Your task to perform on an android device: turn off notifications settings in the gmail app Image 0: 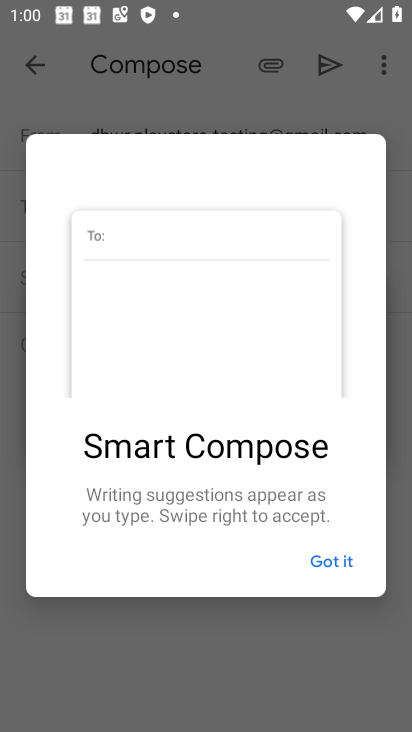
Step 0: click (330, 573)
Your task to perform on an android device: turn off notifications settings in the gmail app Image 1: 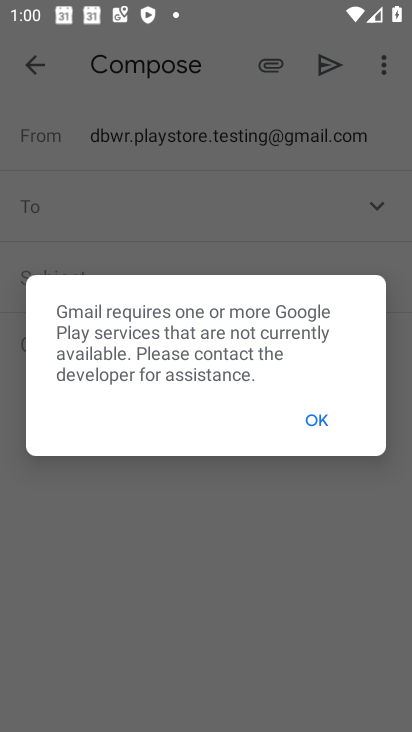
Step 1: click (322, 421)
Your task to perform on an android device: turn off notifications settings in the gmail app Image 2: 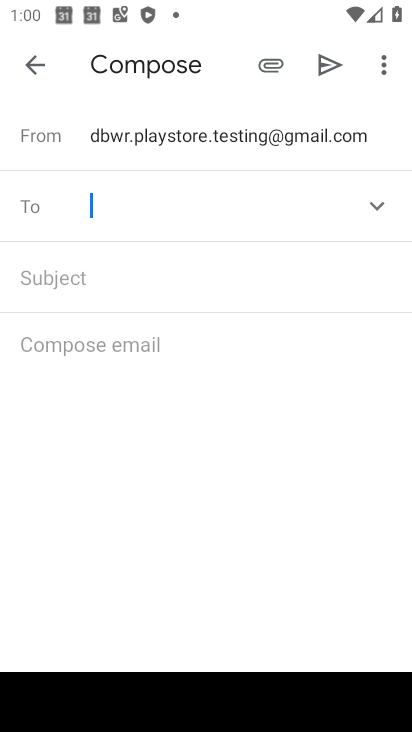
Step 2: click (32, 61)
Your task to perform on an android device: turn off notifications settings in the gmail app Image 3: 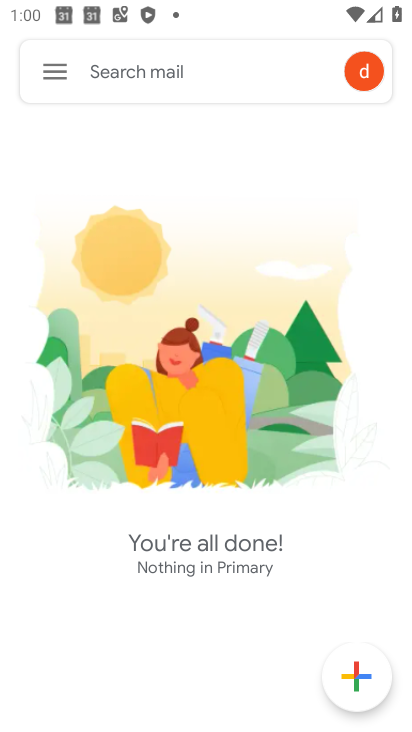
Step 3: click (68, 81)
Your task to perform on an android device: turn off notifications settings in the gmail app Image 4: 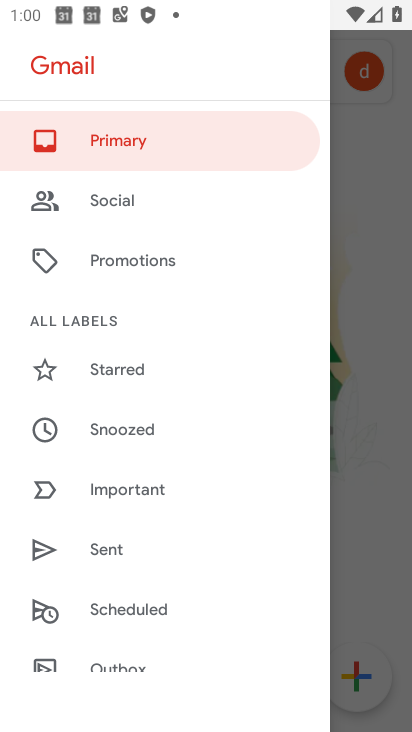
Step 4: drag from (113, 611) to (164, 199)
Your task to perform on an android device: turn off notifications settings in the gmail app Image 5: 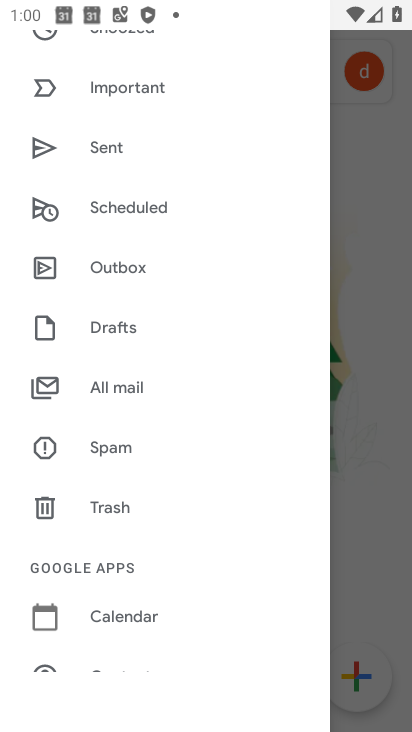
Step 5: drag from (150, 613) to (179, 379)
Your task to perform on an android device: turn off notifications settings in the gmail app Image 6: 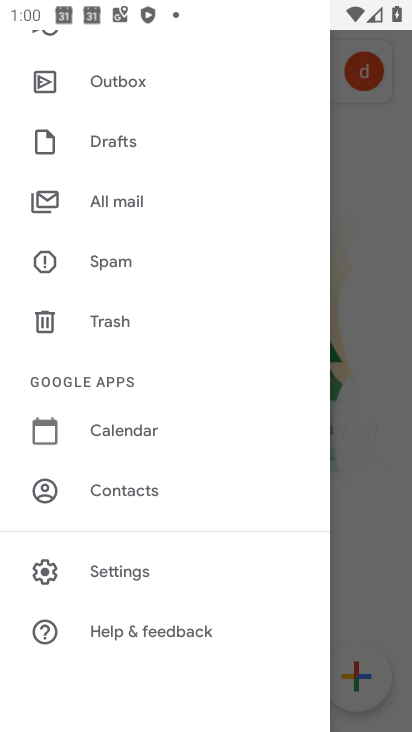
Step 6: click (169, 566)
Your task to perform on an android device: turn off notifications settings in the gmail app Image 7: 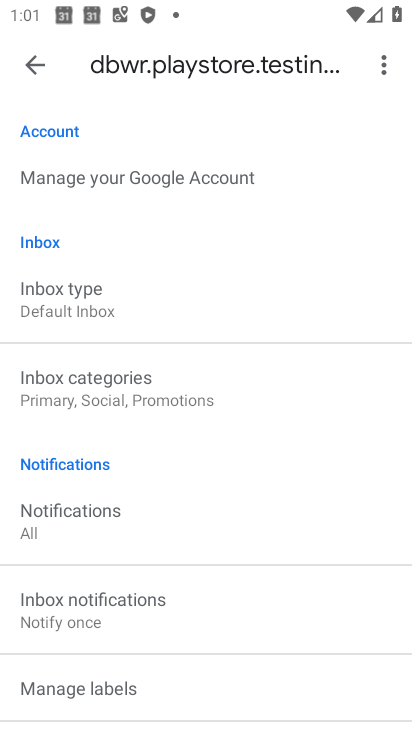
Step 7: click (30, 73)
Your task to perform on an android device: turn off notifications settings in the gmail app Image 8: 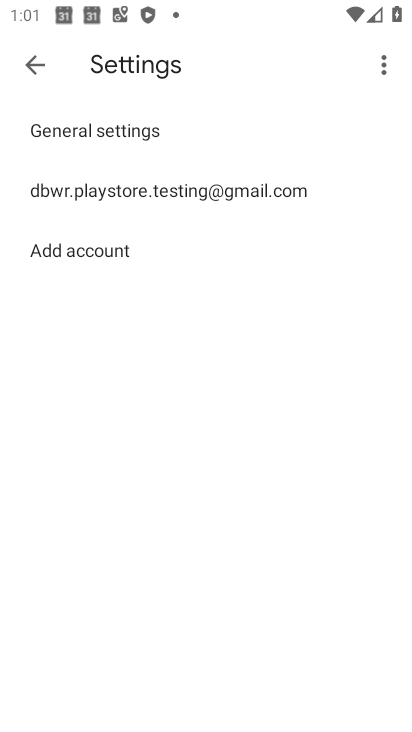
Step 8: click (119, 135)
Your task to perform on an android device: turn off notifications settings in the gmail app Image 9: 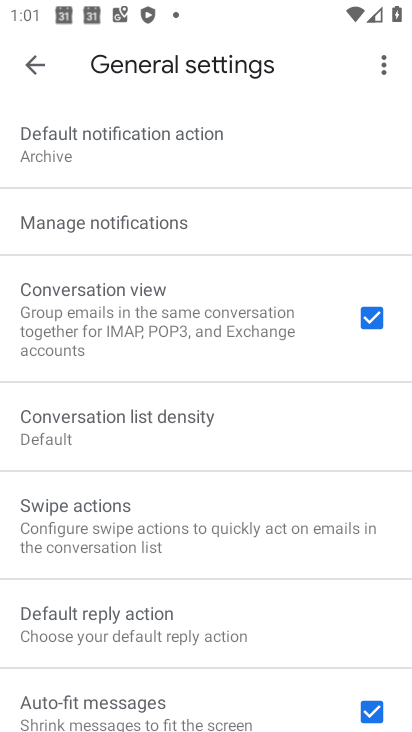
Step 9: click (96, 243)
Your task to perform on an android device: turn off notifications settings in the gmail app Image 10: 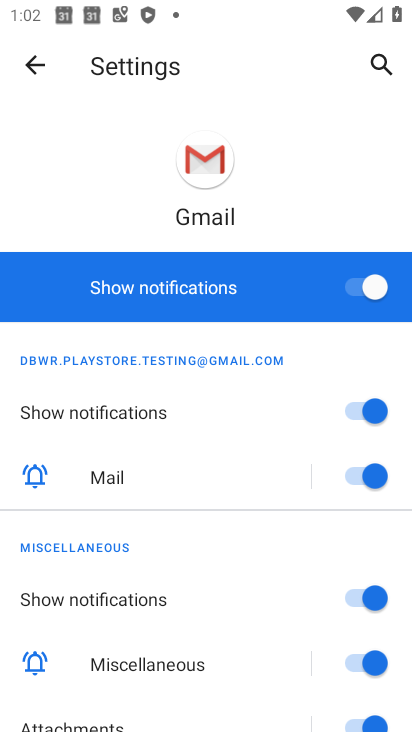
Step 10: click (361, 283)
Your task to perform on an android device: turn off notifications settings in the gmail app Image 11: 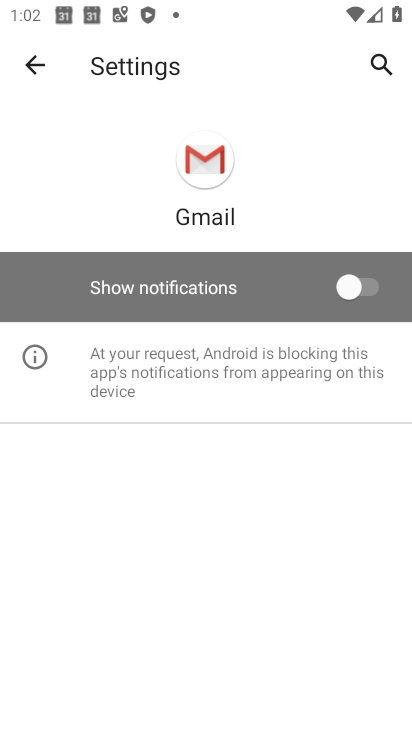
Step 11: task complete